Your task to perform on an android device: turn off sleep mode Image 0: 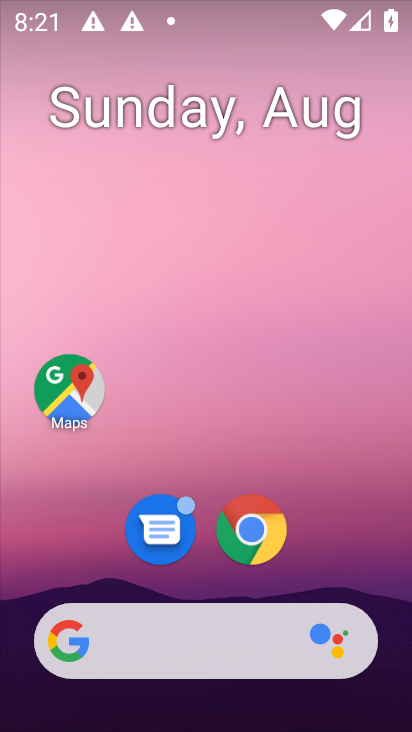
Step 0: drag from (199, 579) to (217, 202)
Your task to perform on an android device: turn off sleep mode Image 1: 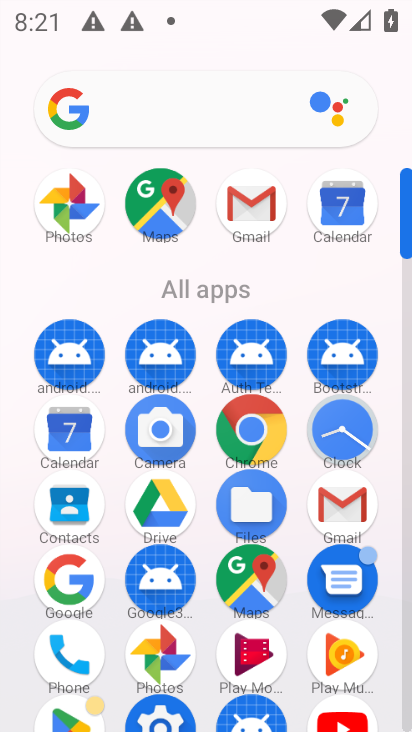
Step 1: drag from (208, 645) to (205, 365)
Your task to perform on an android device: turn off sleep mode Image 2: 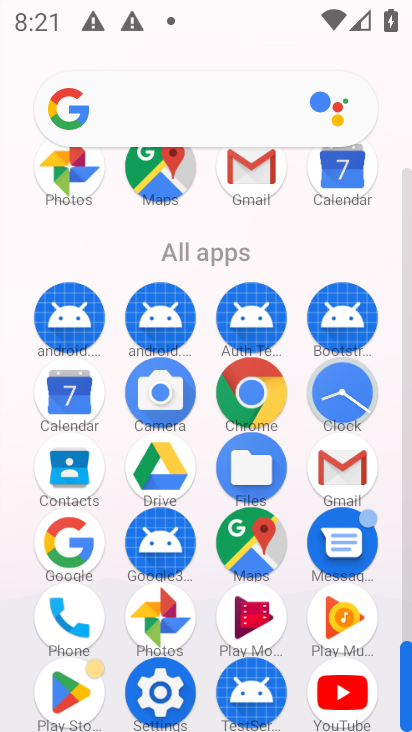
Step 2: click (172, 706)
Your task to perform on an android device: turn off sleep mode Image 3: 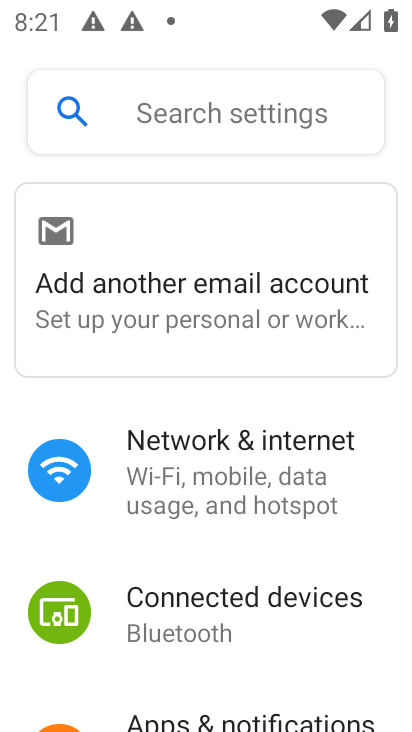
Step 3: drag from (224, 563) to (221, 634)
Your task to perform on an android device: turn off sleep mode Image 4: 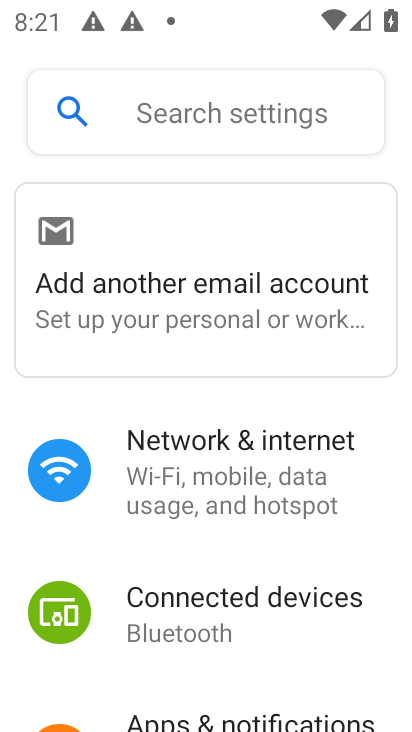
Step 4: click (189, 108)
Your task to perform on an android device: turn off sleep mode Image 5: 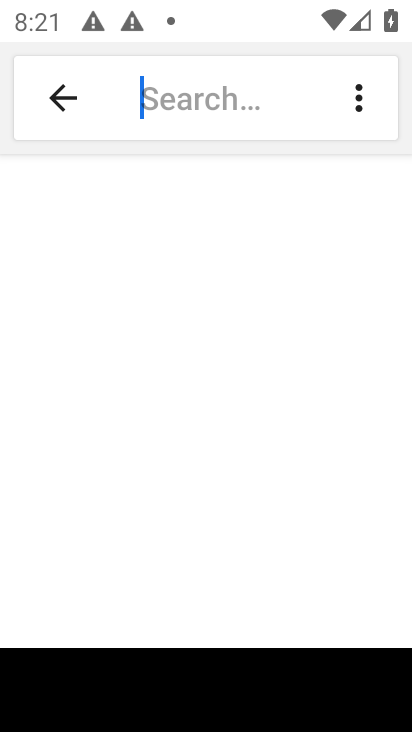
Step 5: type "sleep mode"
Your task to perform on an android device: turn off sleep mode Image 6: 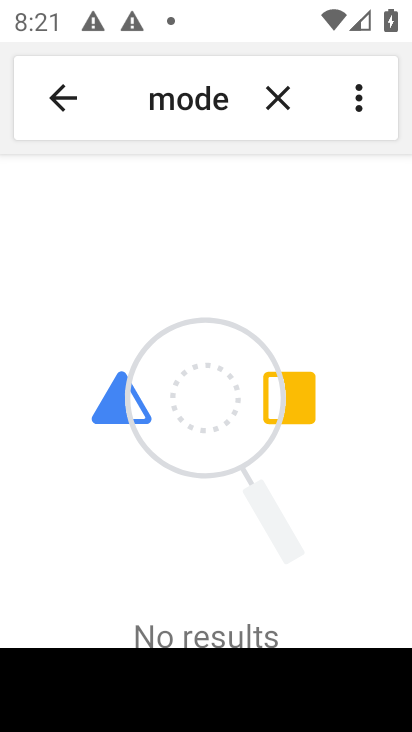
Step 6: task complete